Your task to perform on an android device: turn off improve location accuracy Image 0: 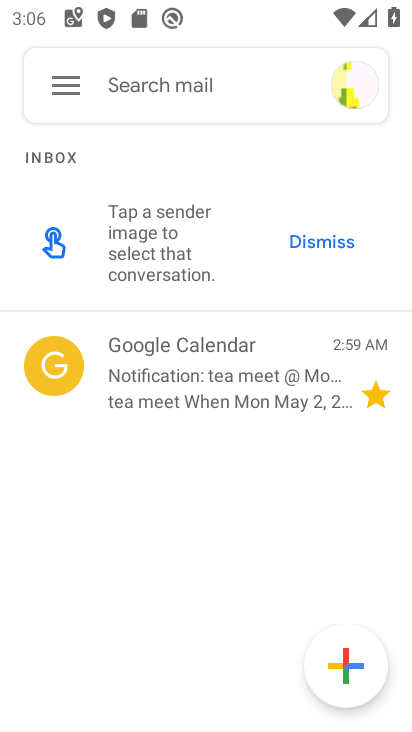
Step 0: press home button
Your task to perform on an android device: turn off improve location accuracy Image 1: 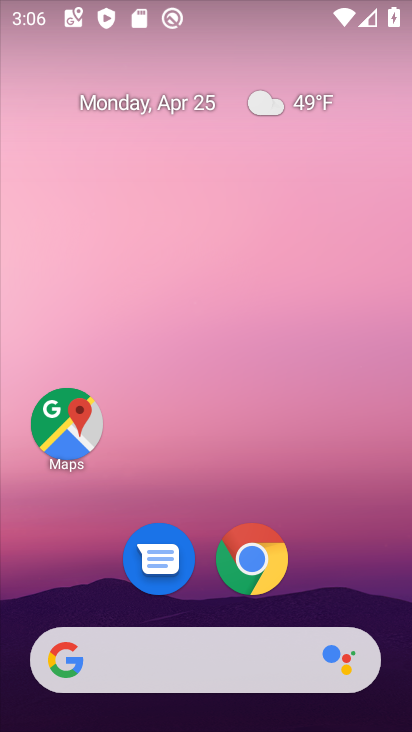
Step 1: drag from (301, 524) to (356, 67)
Your task to perform on an android device: turn off improve location accuracy Image 2: 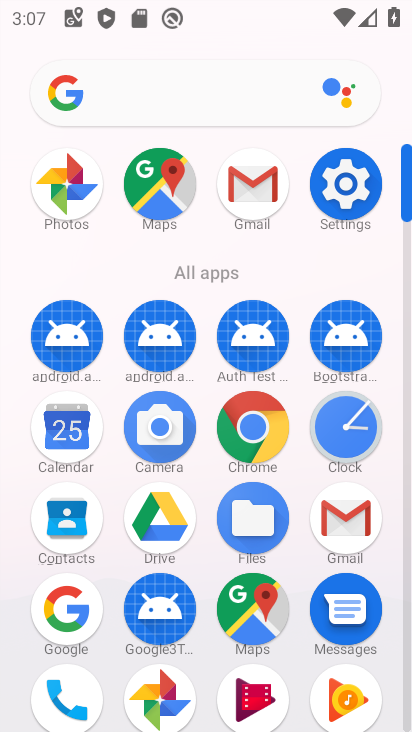
Step 2: click (352, 179)
Your task to perform on an android device: turn off improve location accuracy Image 3: 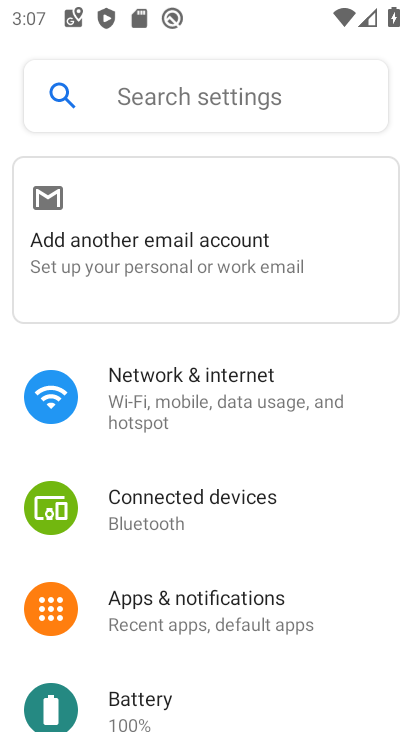
Step 3: drag from (215, 689) to (245, 167)
Your task to perform on an android device: turn off improve location accuracy Image 4: 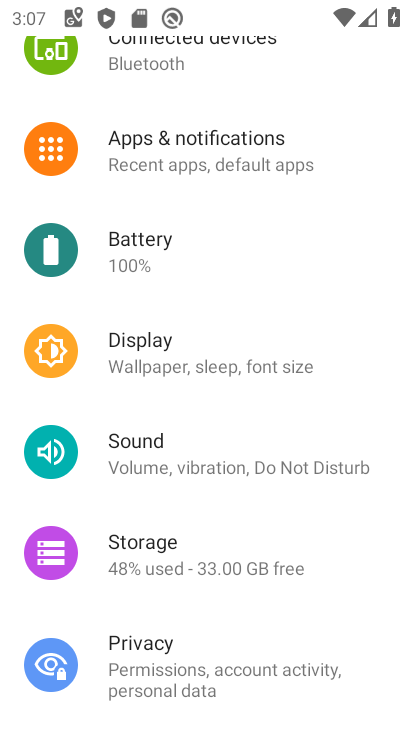
Step 4: drag from (246, 501) to (237, 110)
Your task to perform on an android device: turn off improve location accuracy Image 5: 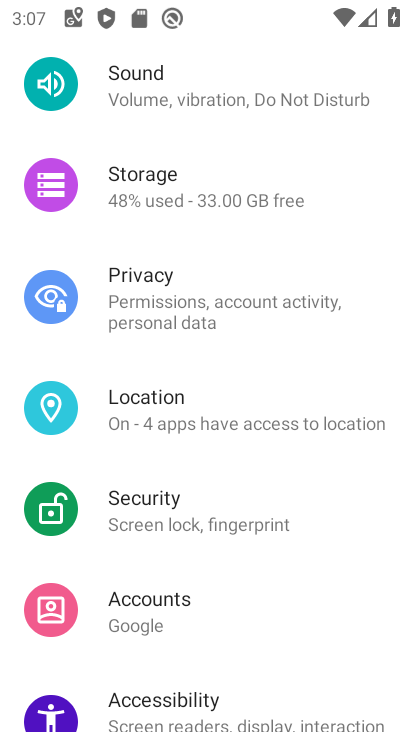
Step 5: click (233, 407)
Your task to perform on an android device: turn off improve location accuracy Image 6: 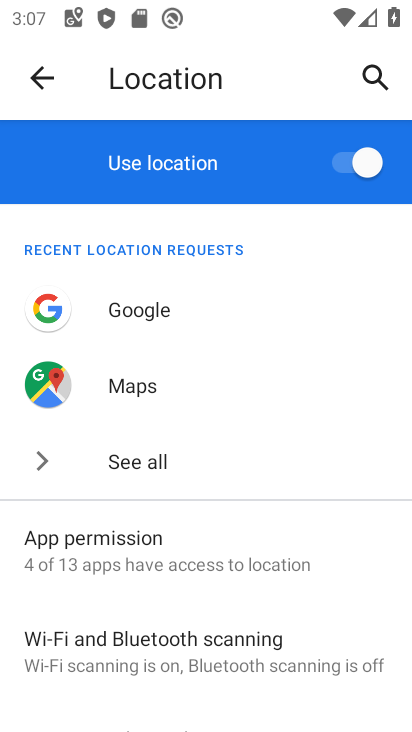
Step 6: drag from (187, 545) to (173, 159)
Your task to perform on an android device: turn off improve location accuracy Image 7: 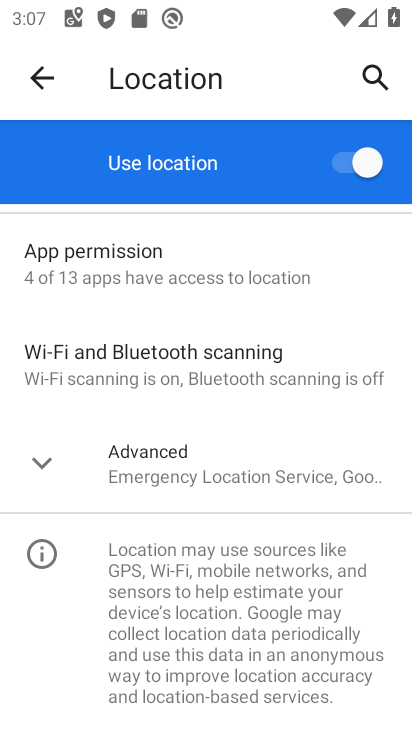
Step 7: click (39, 457)
Your task to perform on an android device: turn off improve location accuracy Image 8: 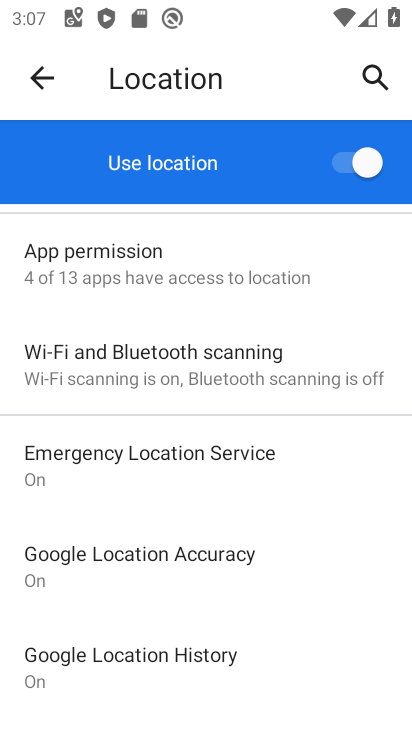
Step 8: click (215, 560)
Your task to perform on an android device: turn off improve location accuracy Image 9: 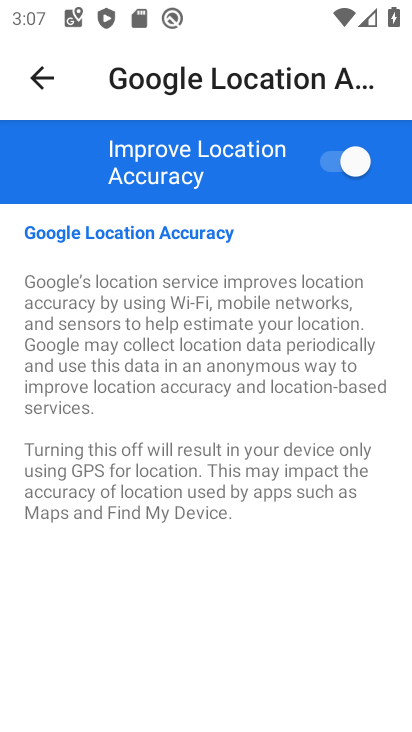
Step 9: click (343, 159)
Your task to perform on an android device: turn off improve location accuracy Image 10: 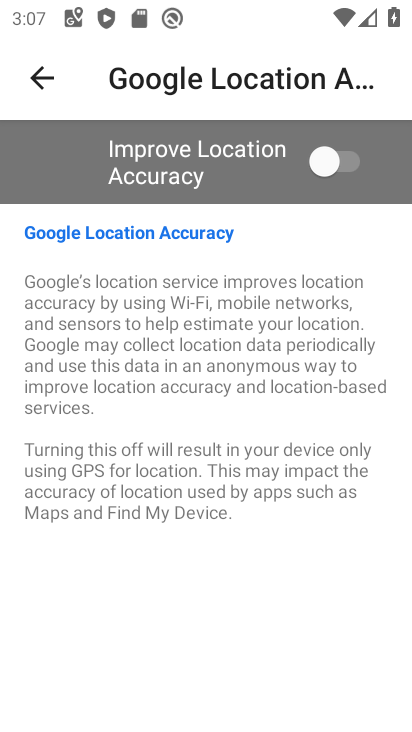
Step 10: task complete